Your task to perform on an android device: install app "Paramount+ | Peak Streaming" Image 0: 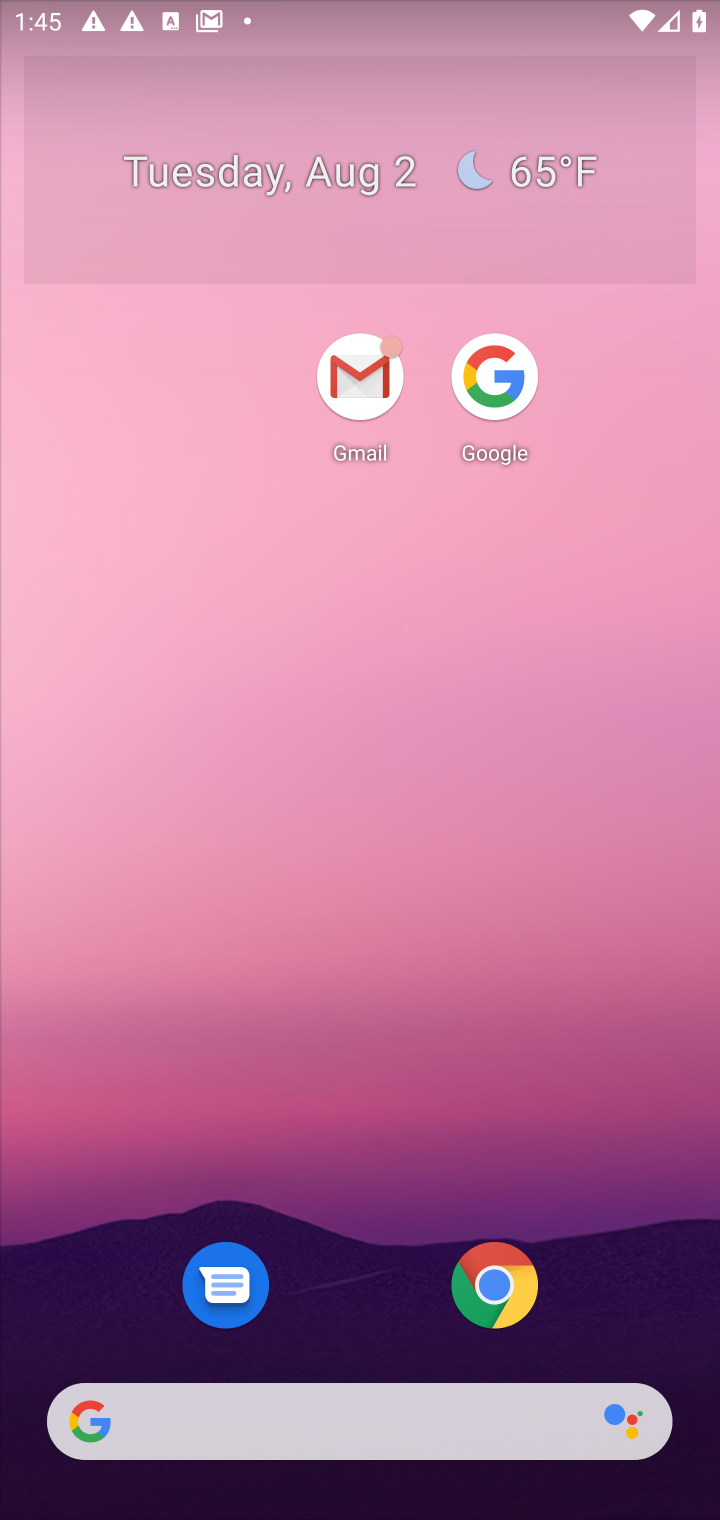
Step 0: drag from (355, 1120) to (413, 250)
Your task to perform on an android device: install app "Paramount+ | Peak Streaming" Image 1: 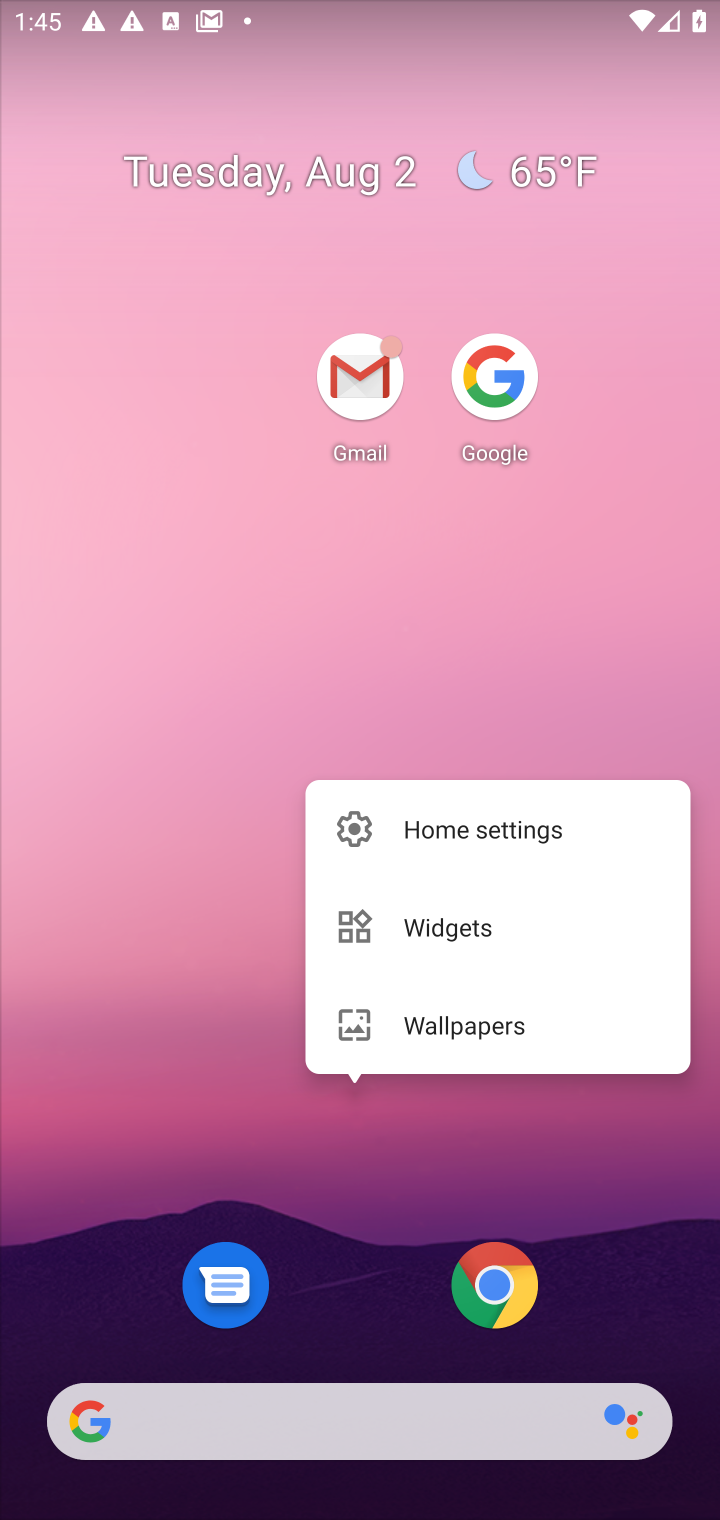
Step 1: click (114, 747)
Your task to perform on an android device: install app "Paramount+ | Peak Streaming" Image 2: 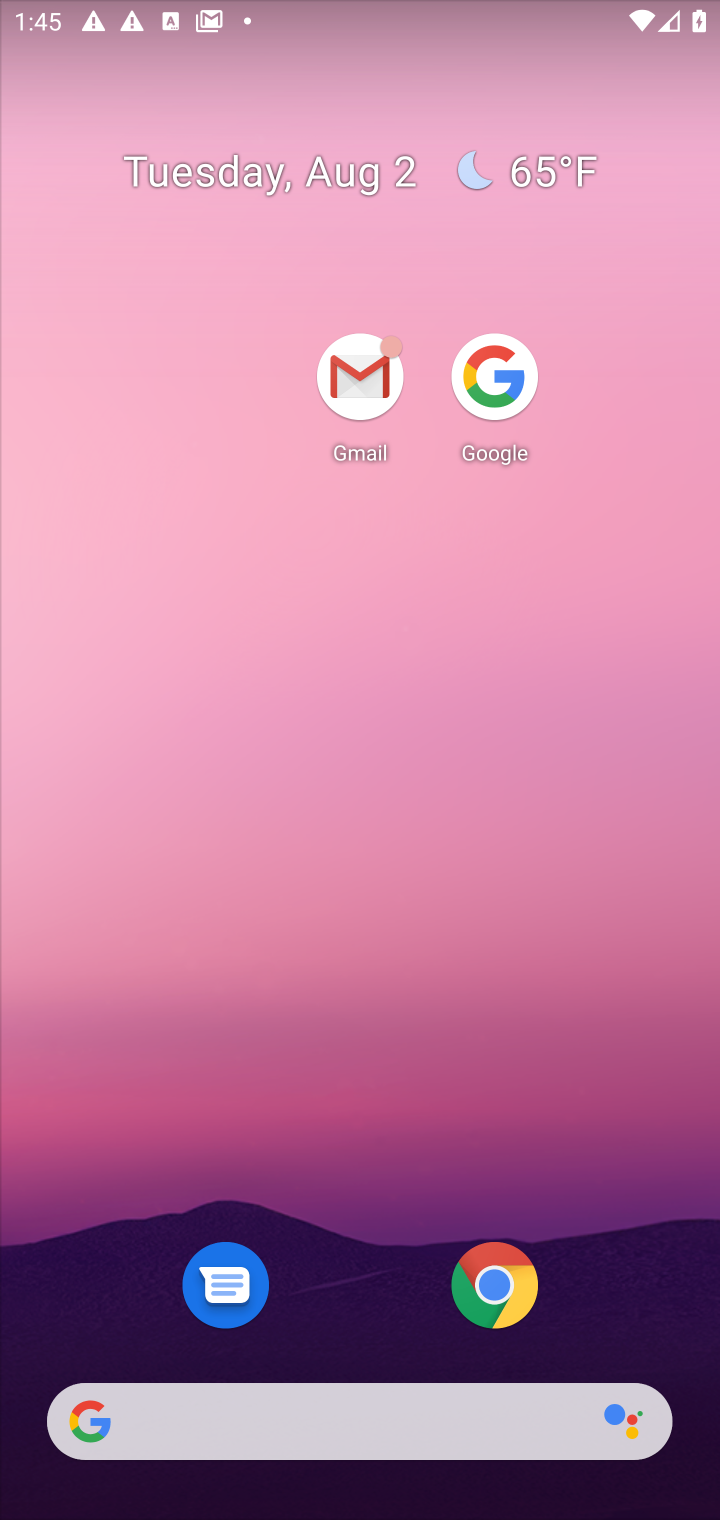
Step 2: drag from (379, 1020) to (474, 21)
Your task to perform on an android device: install app "Paramount+ | Peak Streaming" Image 3: 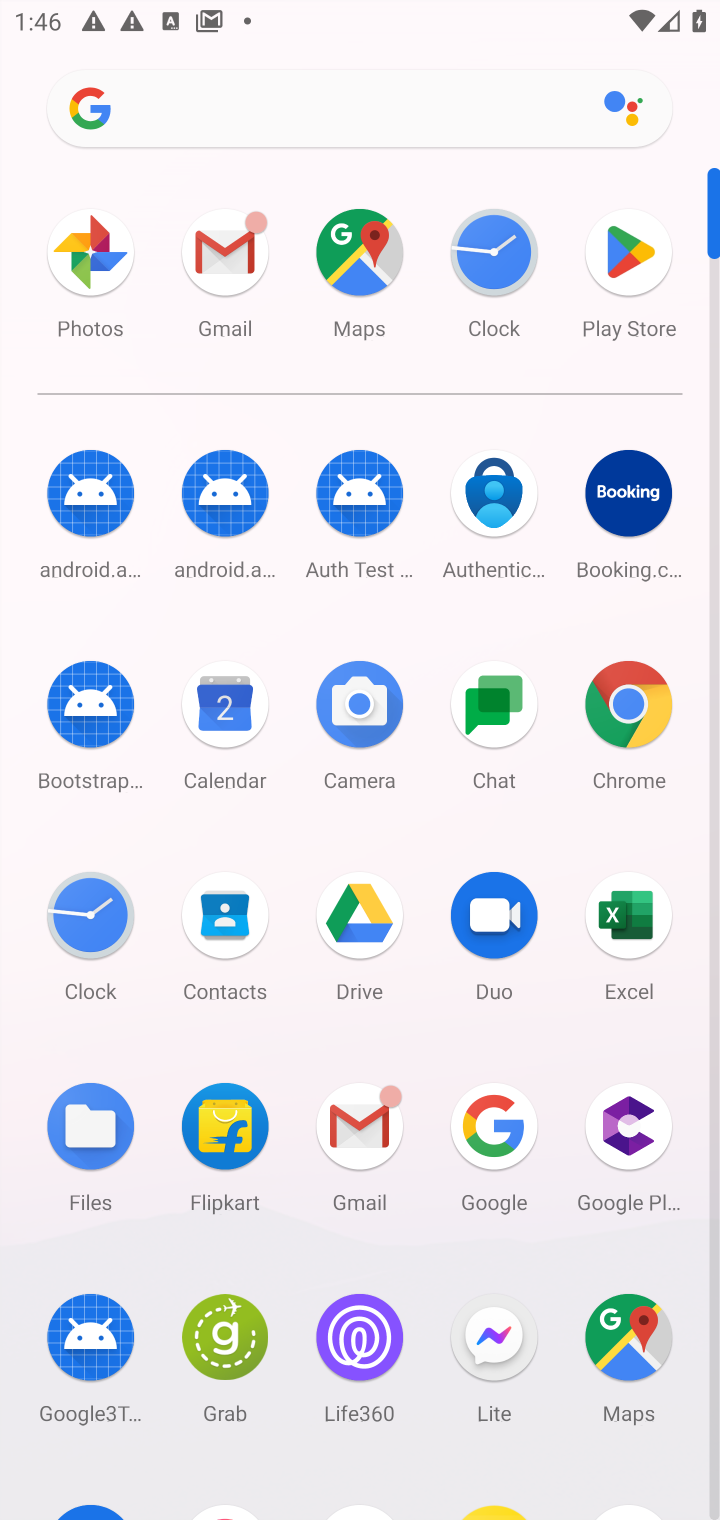
Step 3: drag from (418, 1275) to (466, 588)
Your task to perform on an android device: install app "Paramount+ | Peak Streaming" Image 4: 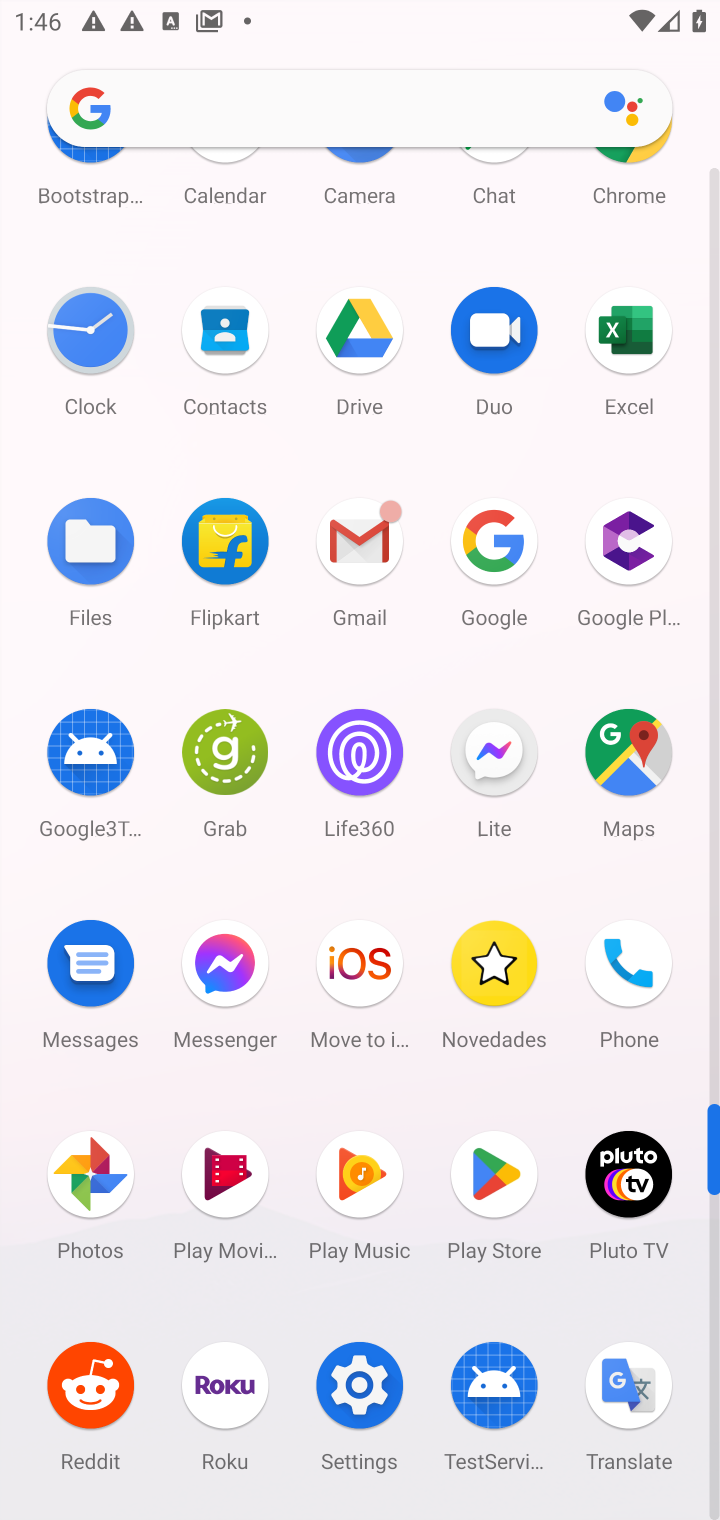
Step 4: click (493, 1166)
Your task to perform on an android device: install app "Paramount+ | Peak Streaming" Image 5: 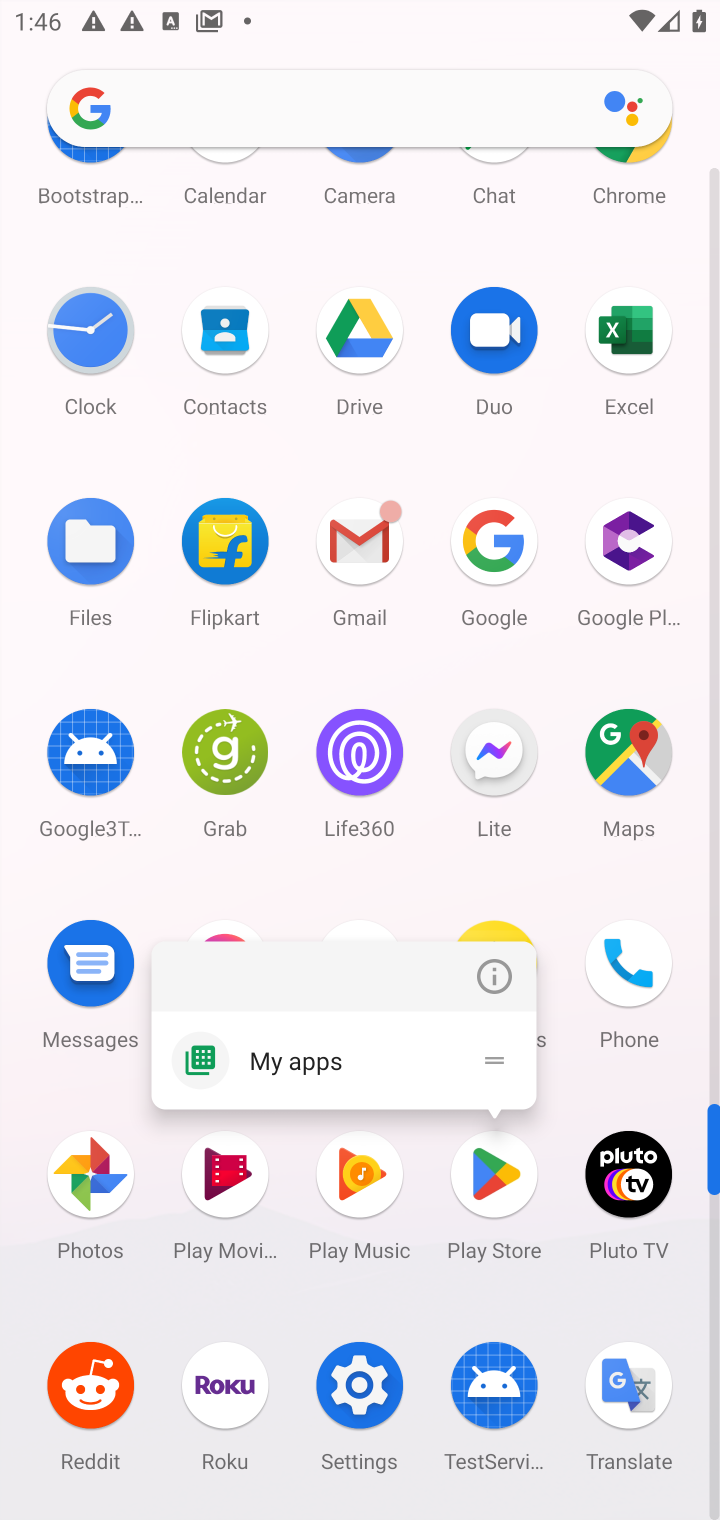
Step 5: click (493, 1171)
Your task to perform on an android device: install app "Paramount+ | Peak Streaming" Image 6: 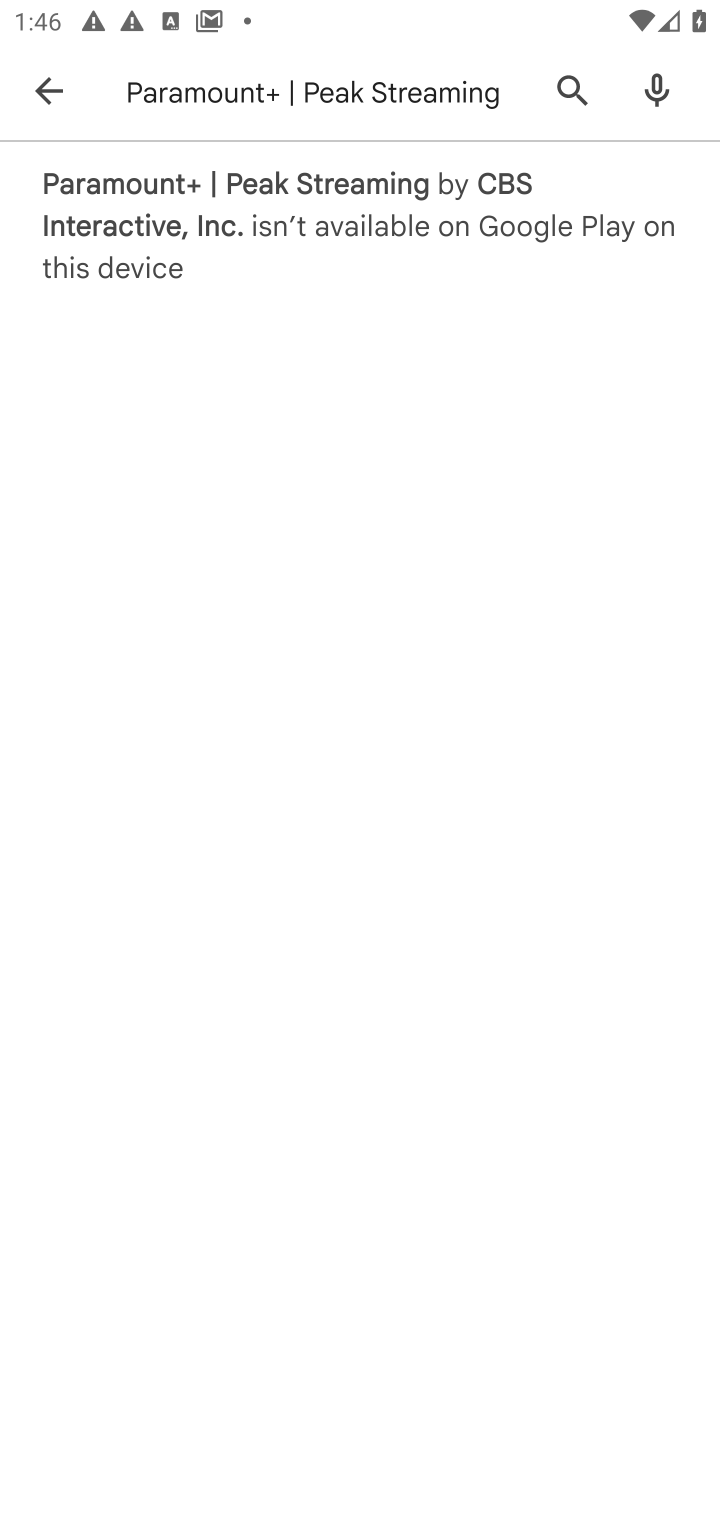
Step 6: click (388, 103)
Your task to perform on an android device: install app "Paramount+ | Peak Streaming" Image 7: 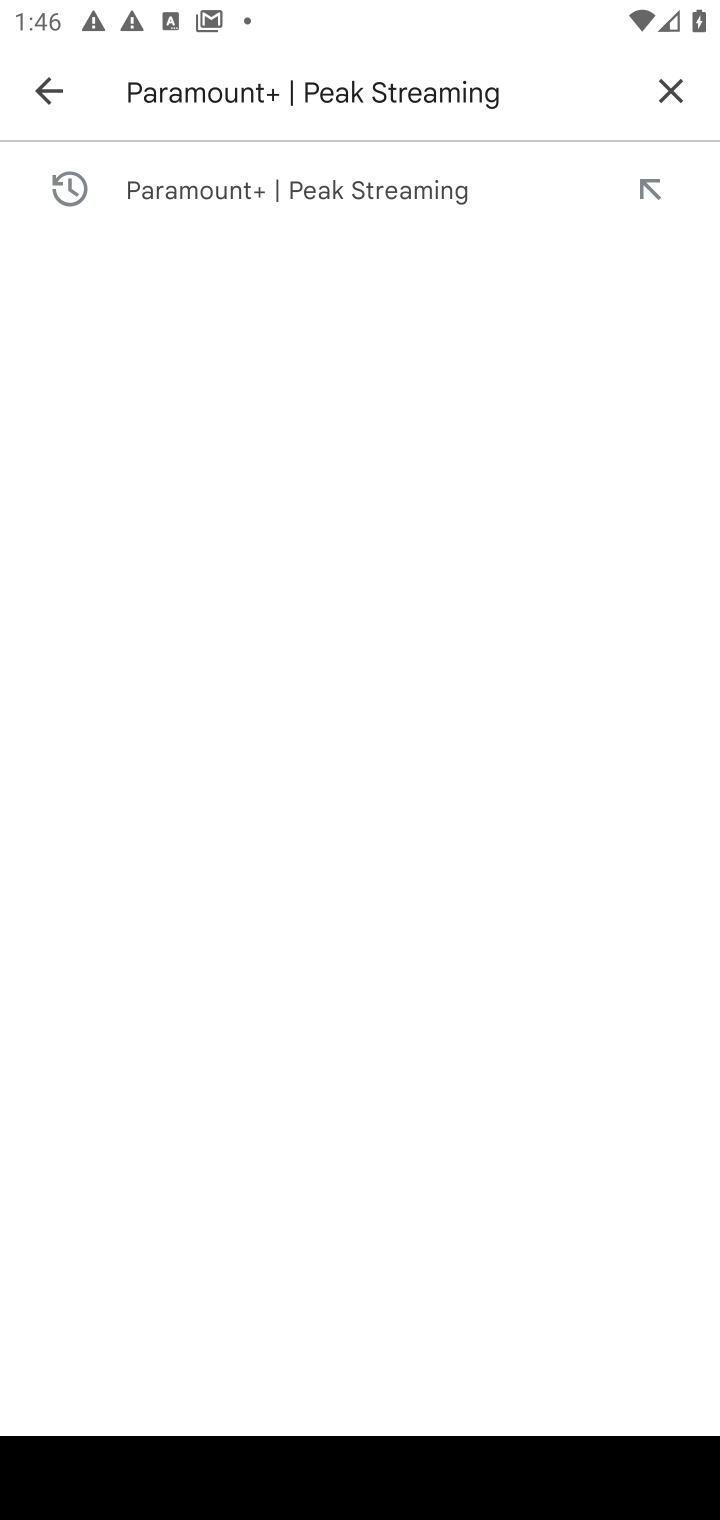
Step 7: click (676, 88)
Your task to perform on an android device: install app "Paramount+ | Peak Streaming" Image 8: 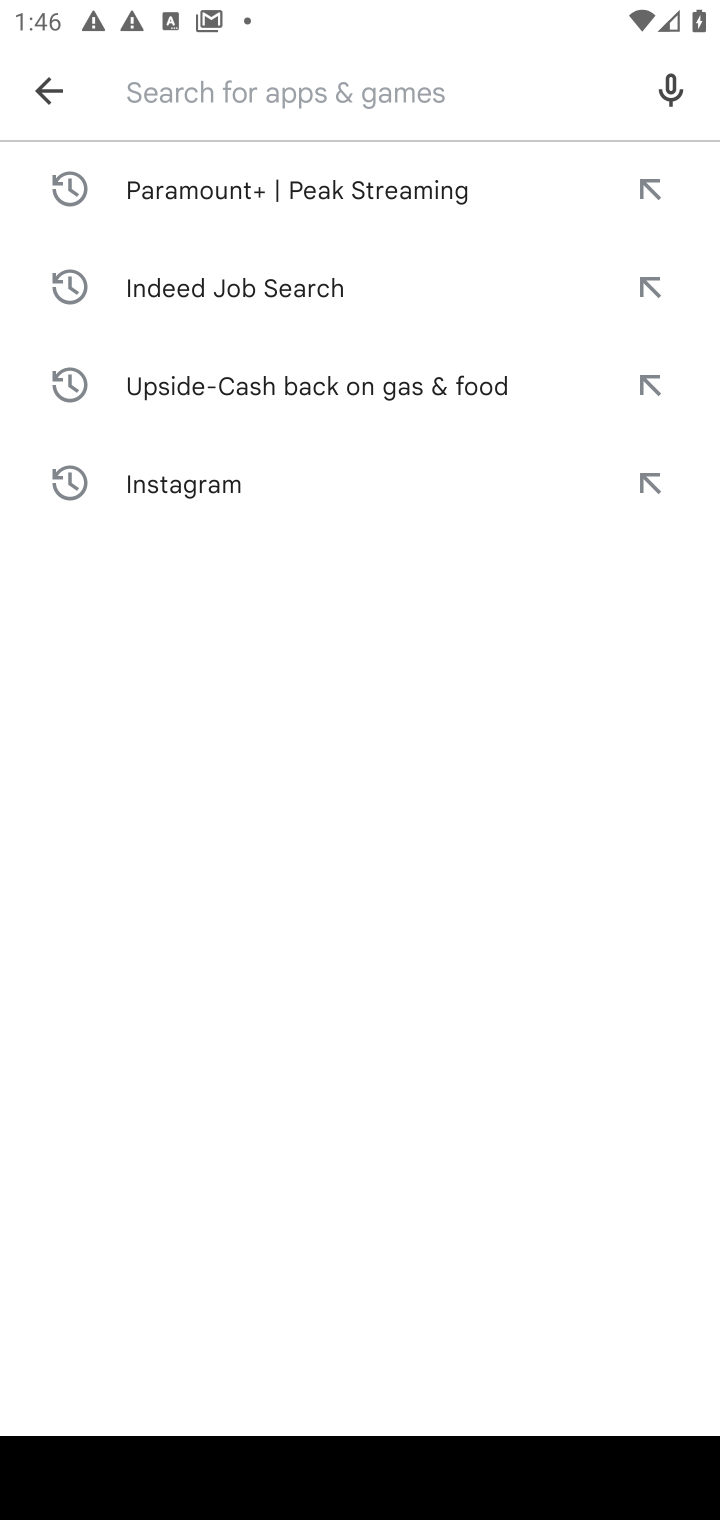
Step 8: type "Paramount+ | Peak Streaming"
Your task to perform on an android device: install app "Paramount+ | Peak Streaming" Image 9: 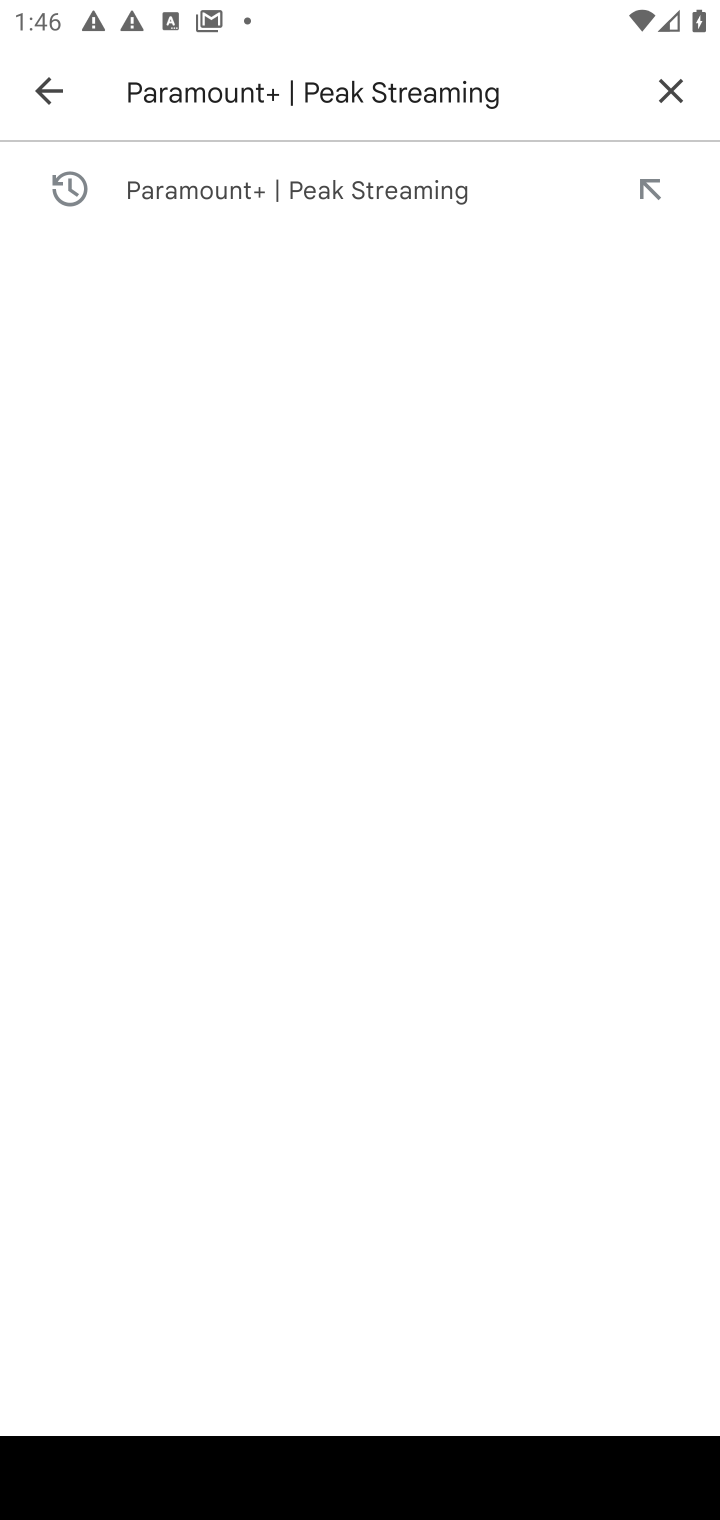
Step 9: click (394, 180)
Your task to perform on an android device: install app "Paramount+ | Peak Streaming" Image 10: 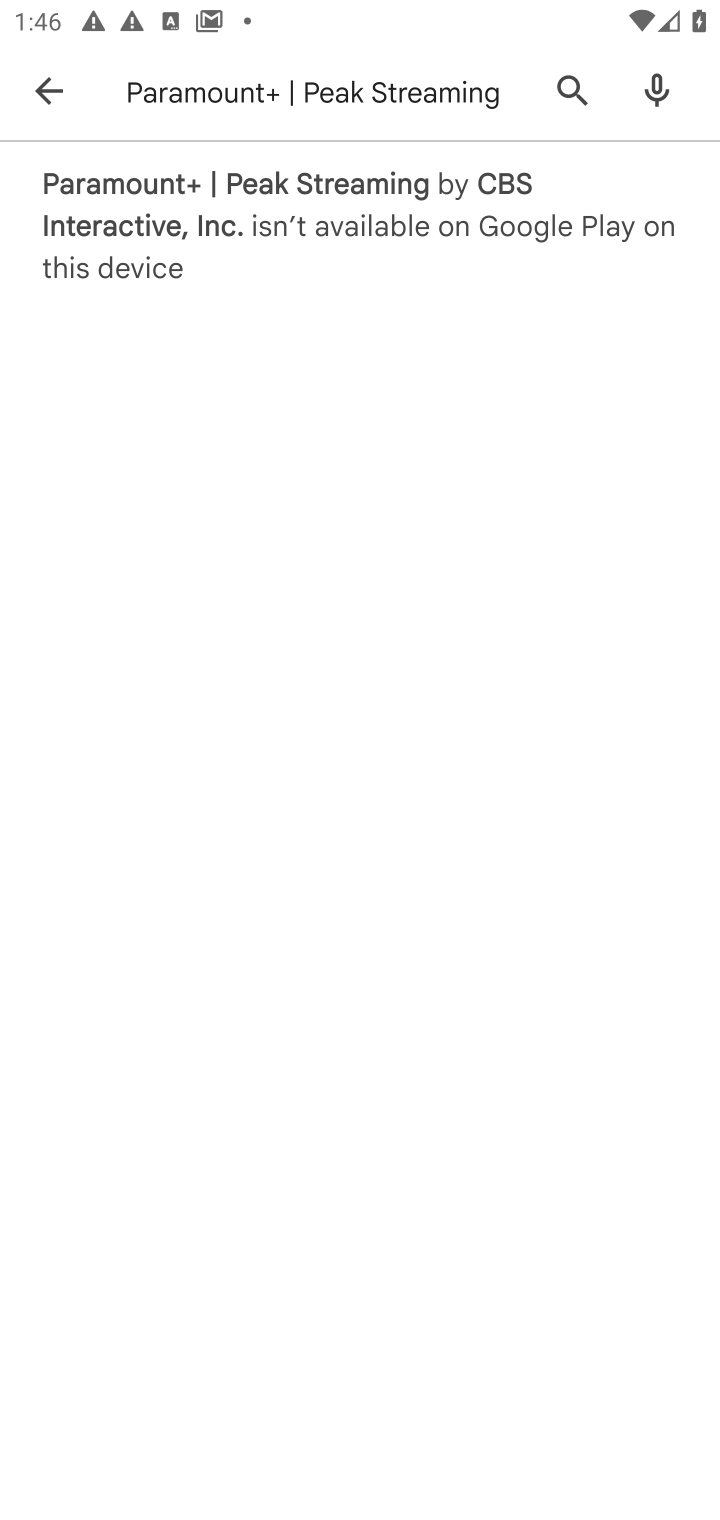
Step 10: task complete